Your task to perform on an android device: delete the emails in spam in the gmail app Image 0: 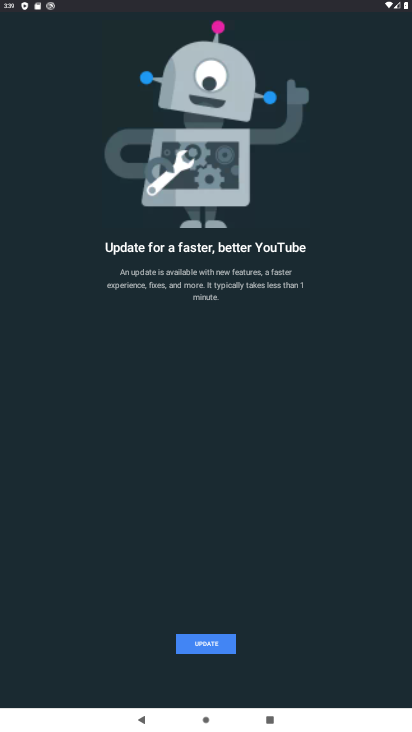
Step 0: press home button
Your task to perform on an android device: delete the emails in spam in the gmail app Image 1: 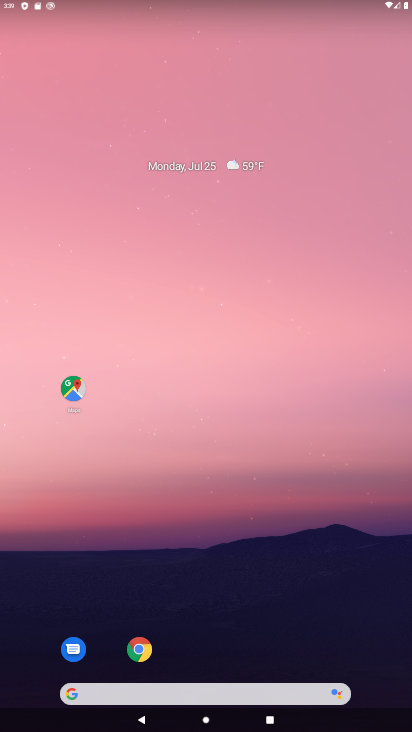
Step 1: drag from (246, 597) to (355, 248)
Your task to perform on an android device: delete the emails in spam in the gmail app Image 2: 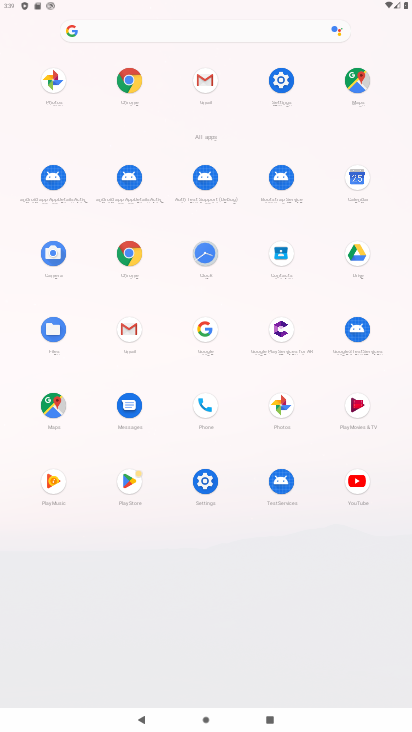
Step 2: click (126, 345)
Your task to perform on an android device: delete the emails in spam in the gmail app Image 3: 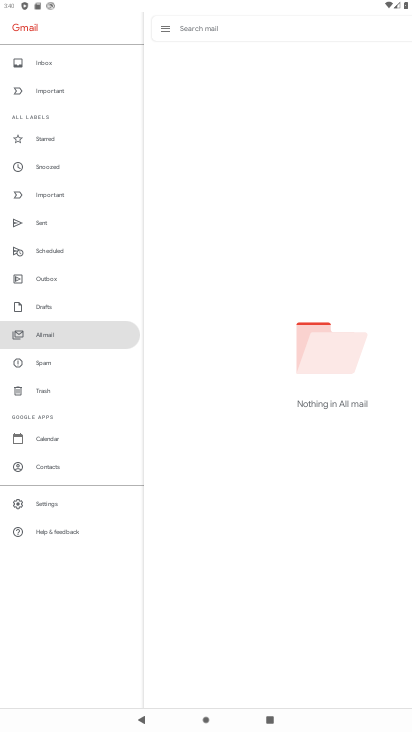
Step 3: click (49, 366)
Your task to perform on an android device: delete the emails in spam in the gmail app Image 4: 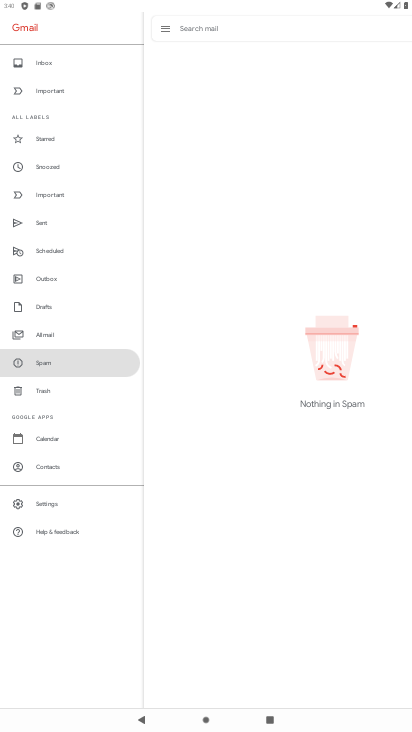
Step 4: click (67, 364)
Your task to perform on an android device: delete the emails in spam in the gmail app Image 5: 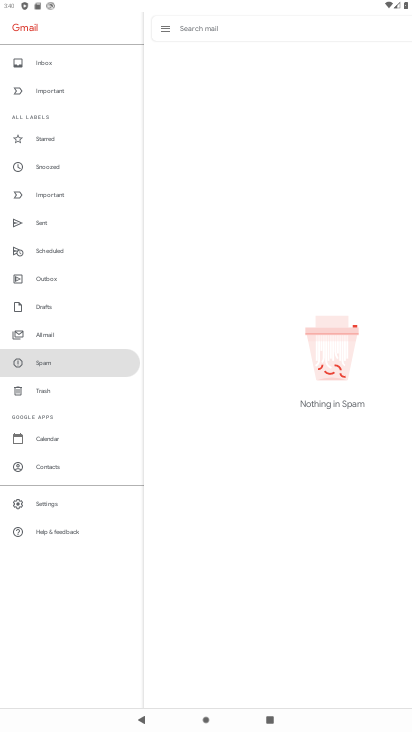
Step 5: task complete